Your task to perform on an android device: remove spam from my inbox in the gmail app Image 0: 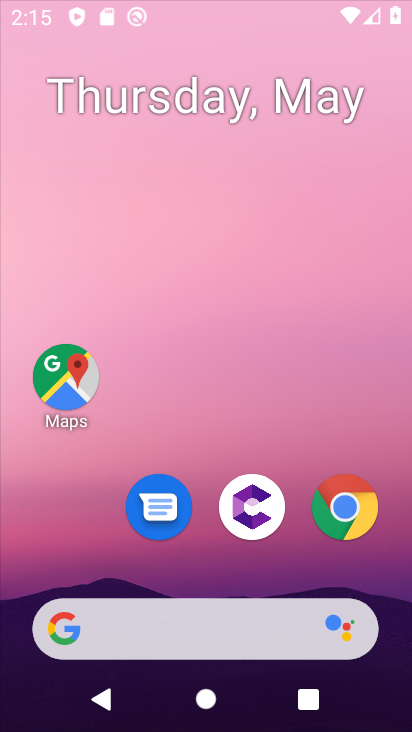
Step 0: press home button
Your task to perform on an android device: remove spam from my inbox in the gmail app Image 1: 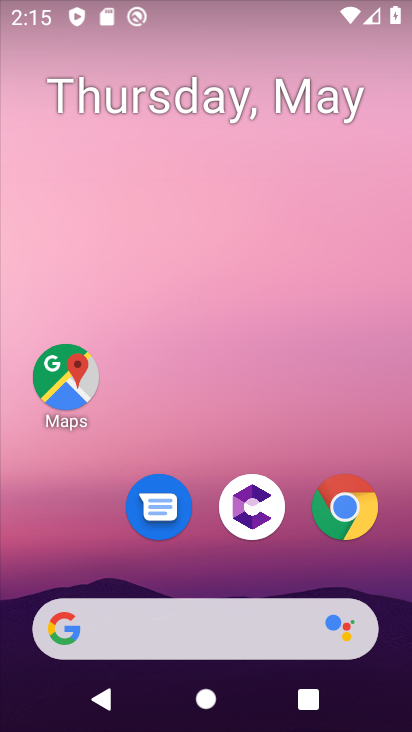
Step 1: drag from (218, 590) to (257, 247)
Your task to perform on an android device: remove spam from my inbox in the gmail app Image 2: 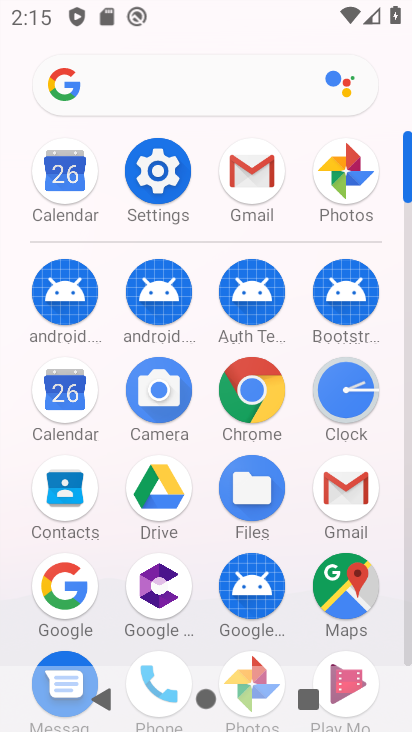
Step 2: click (235, 176)
Your task to perform on an android device: remove spam from my inbox in the gmail app Image 3: 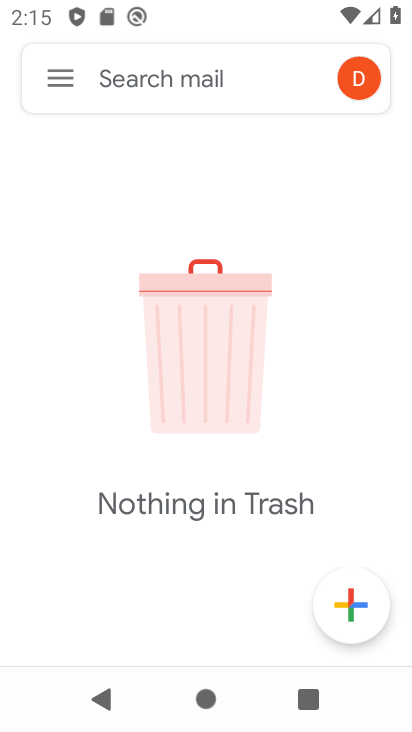
Step 3: click (52, 81)
Your task to perform on an android device: remove spam from my inbox in the gmail app Image 4: 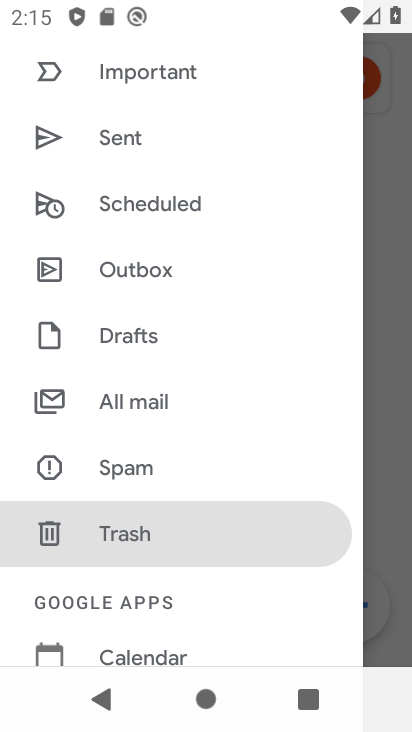
Step 4: click (120, 466)
Your task to perform on an android device: remove spam from my inbox in the gmail app Image 5: 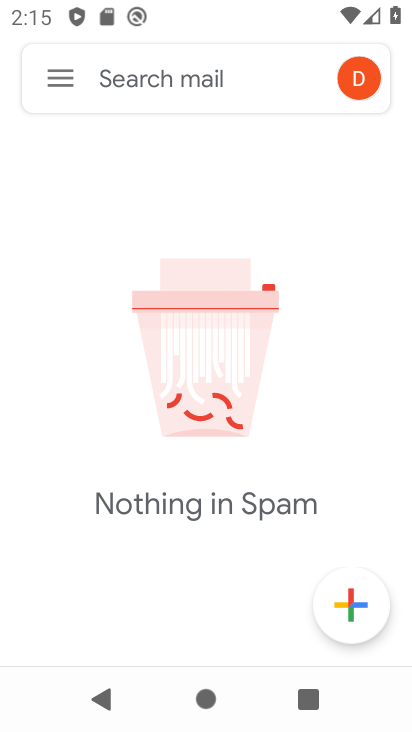
Step 5: task complete